Your task to perform on an android device: set the stopwatch Image 0: 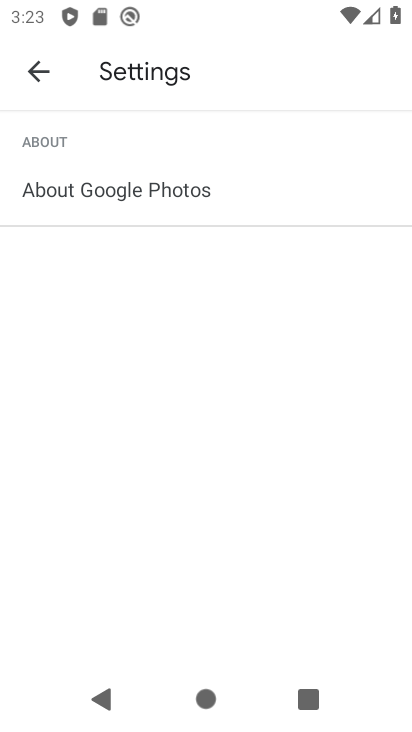
Step 0: press back button
Your task to perform on an android device: set the stopwatch Image 1: 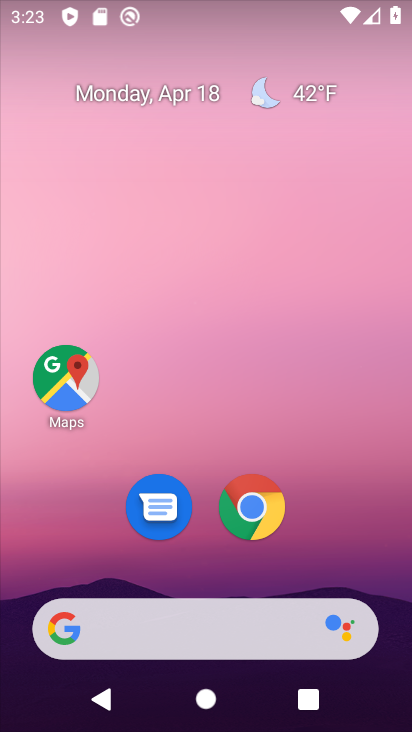
Step 1: drag from (334, 534) to (400, 83)
Your task to perform on an android device: set the stopwatch Image 2: 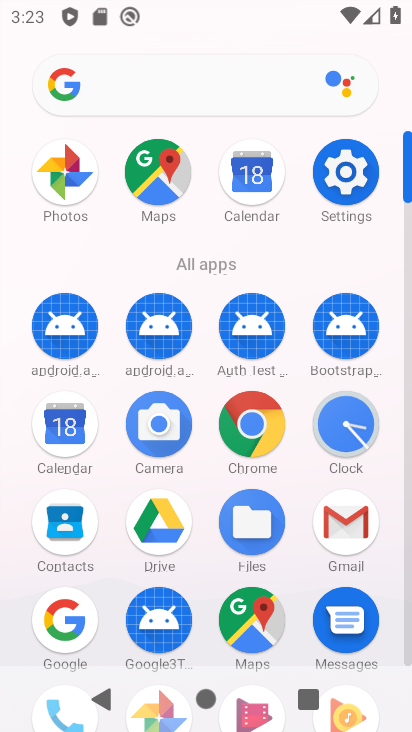
Step 2: click (328, 424)
Your task to perform on an android device: set the stopwatch Image 3: 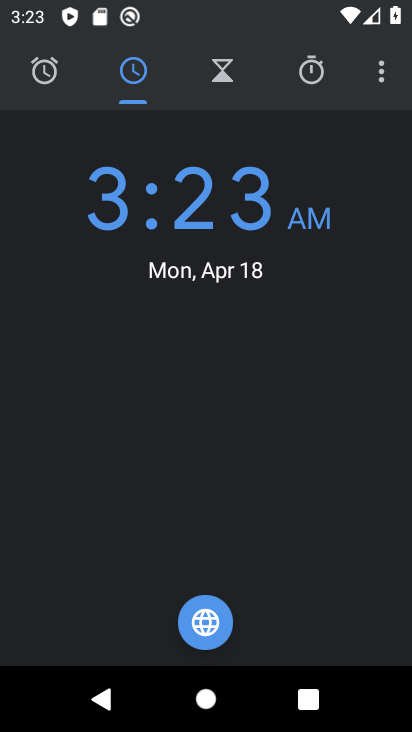
Step 3: click (313, 67)
Your task to perform on an android device: set the stopwatch Image 4: 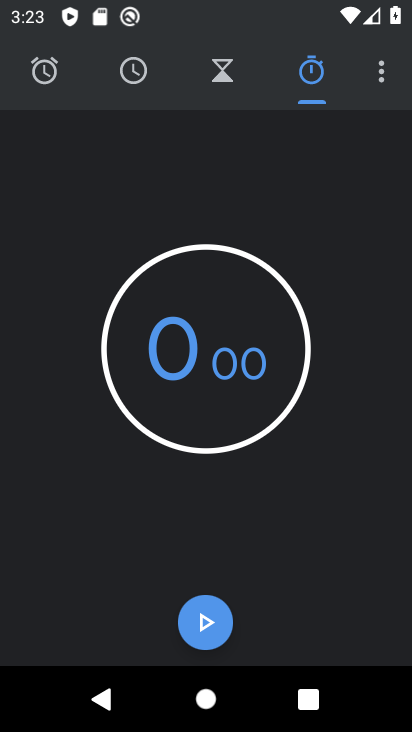
Step 4: click (202, 613)
Your task to perform on an android device: set the stopwatch Image 5: 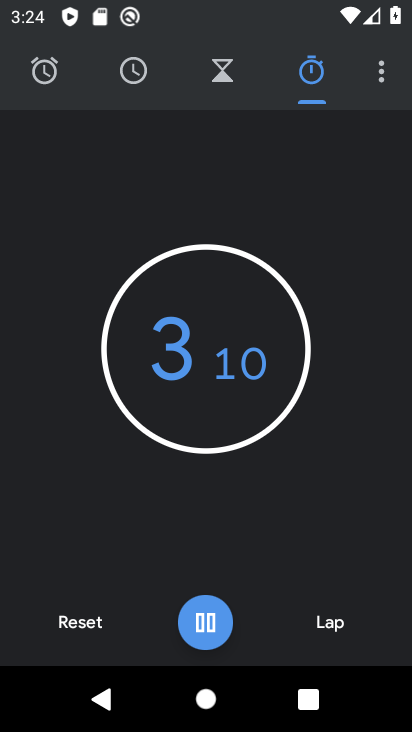
Step 5: task complete